Your task to perform on an android device: Go to privacy settings Image 0: 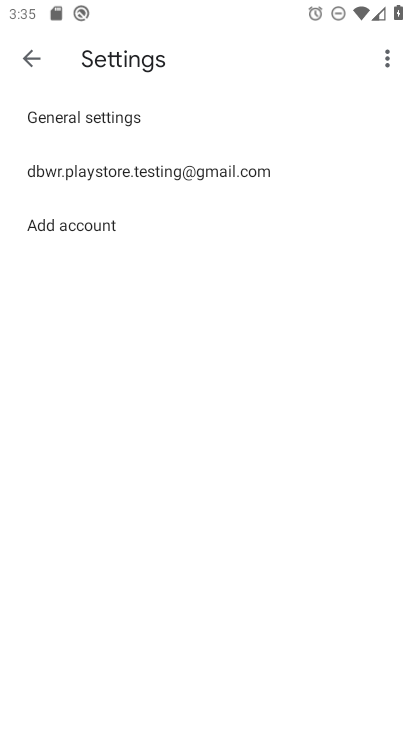
Step 0: press home button
Your task to perform on an android device: Go to privacy settings Image 1: 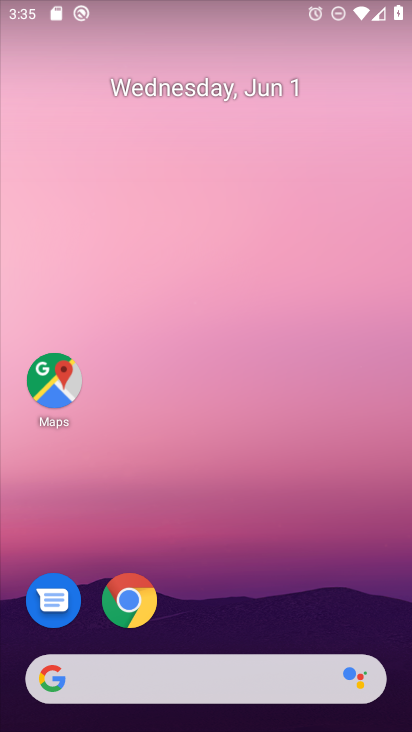
Step 1: drag from (211, 630) to (226, 143)
Your task to perform on an android device: Go to privacy settings Image 2: 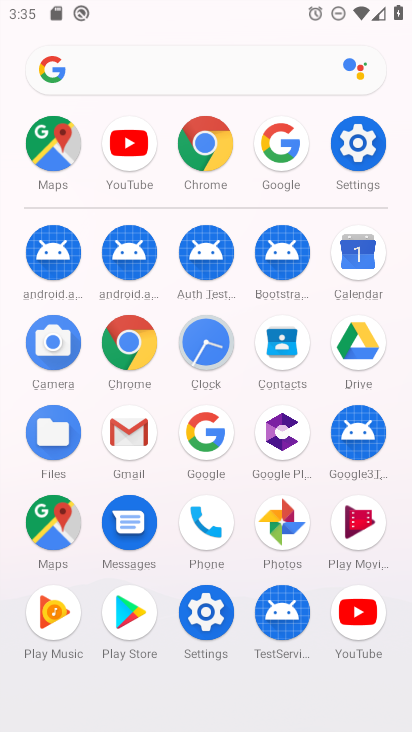
Step 2: click (346, 153)
Your task to perform on an android device: Go to privacy settings Image 3: 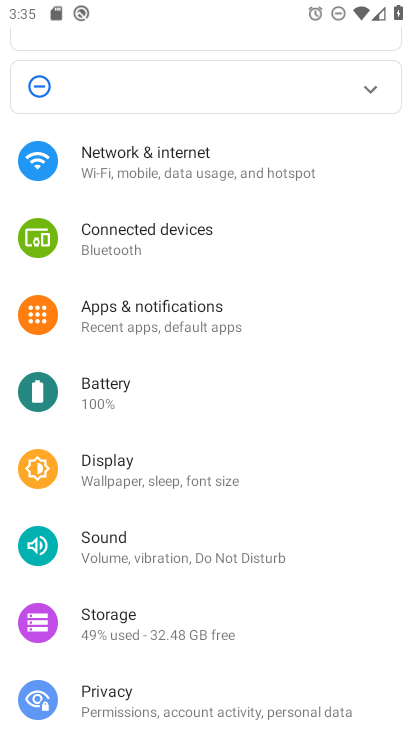
Step 3: click (107, 697)
Your task to perform on an android device: Go to privacy settings Image 4: 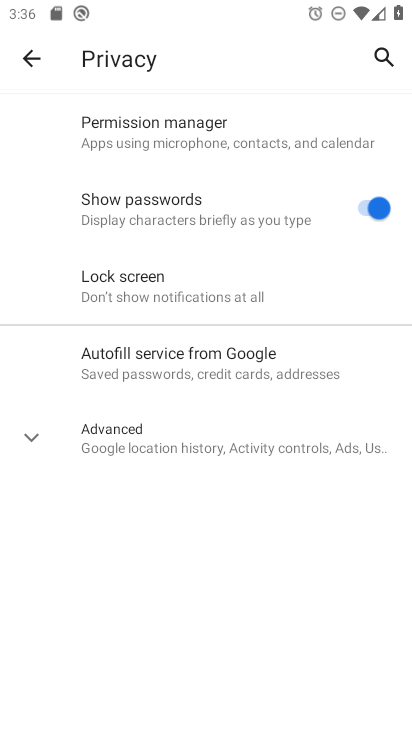
Step 4: task complete